Your task to perform on an android device: Open notification settings Image 0: 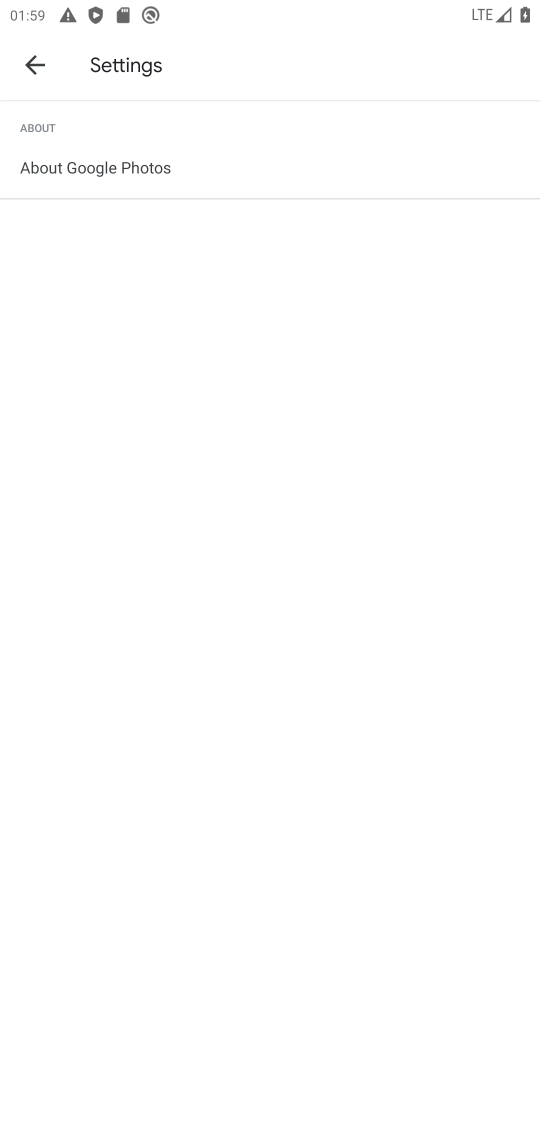
Step 0: press home button
Your task to perform on an android device: Open notification settings Image 1: 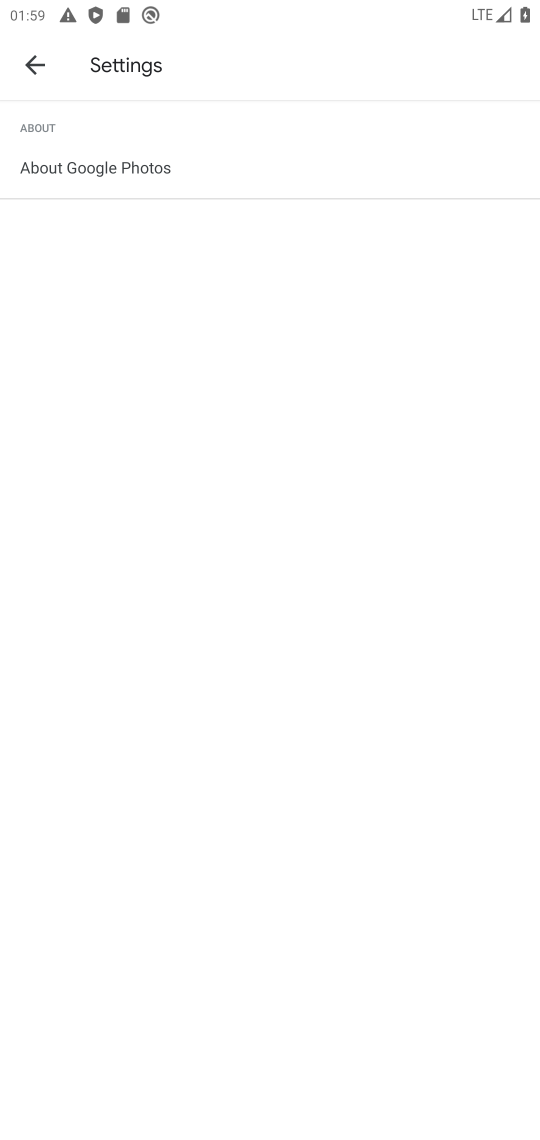
Step 1: press home button
Your task to perform on an android device: Open notification settings Image 2: 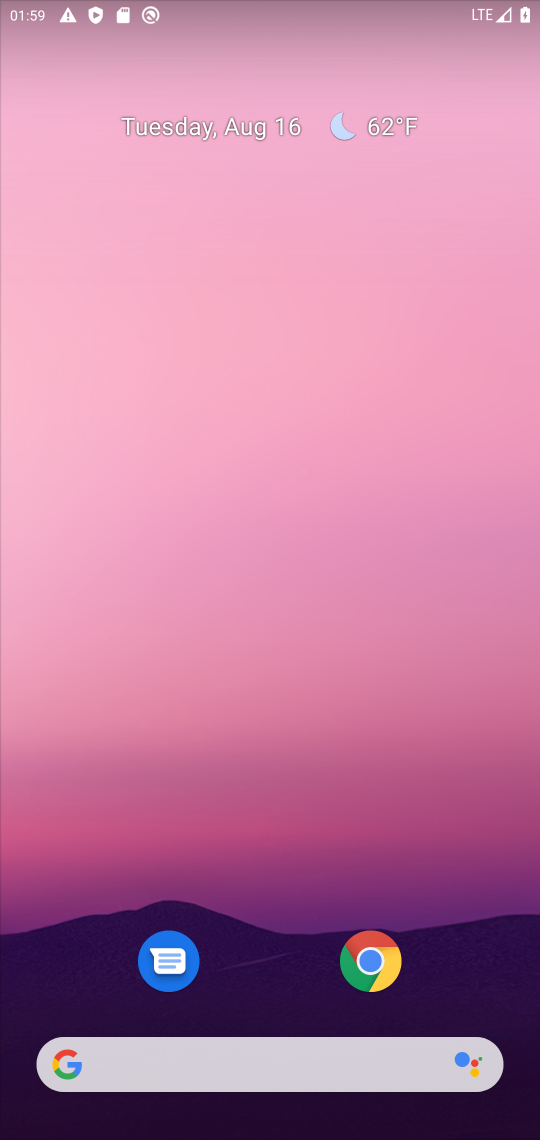
Step 2: drag from (272, 887) to (300, 4)
Your task to perform on an android device: Open notification settings Image 3: 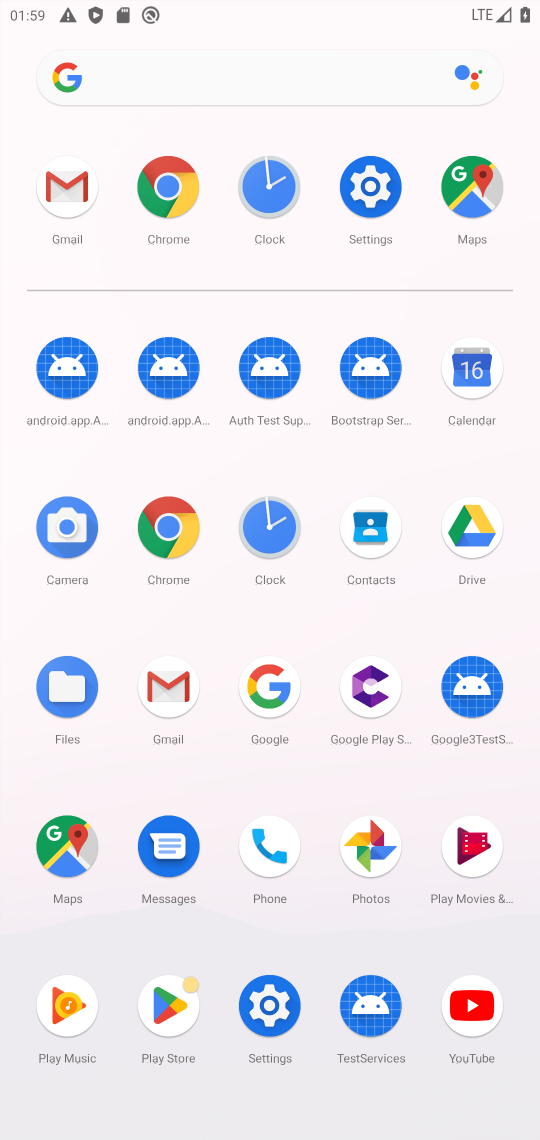
Step 3: click (377, 200)
Your task to perform on an android device: Open notification settings Image 4: 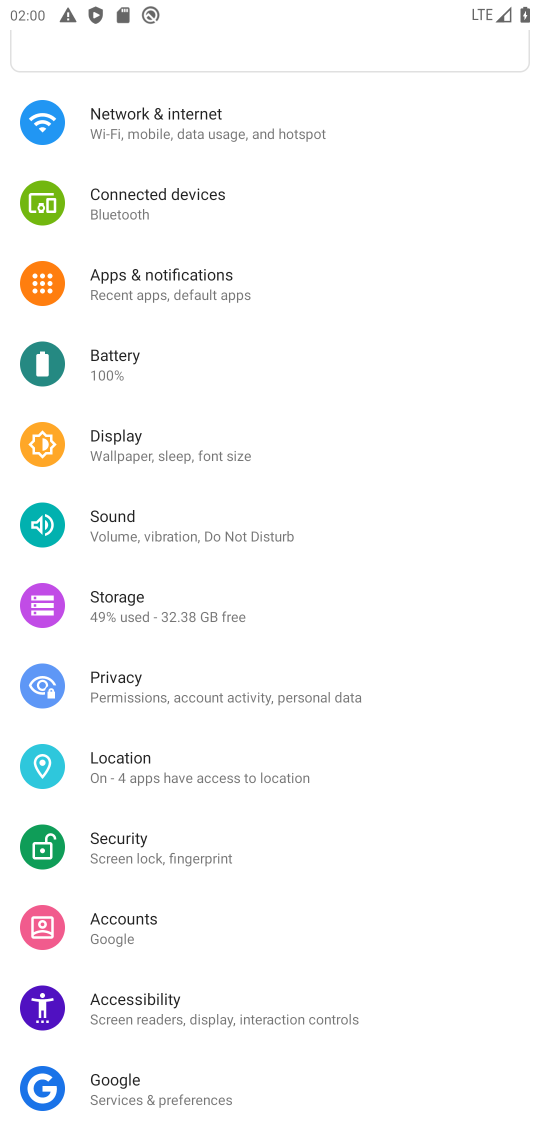
Step 4: click (224, 280)
Your task to perform on an android device: Open notification settings Image 5: 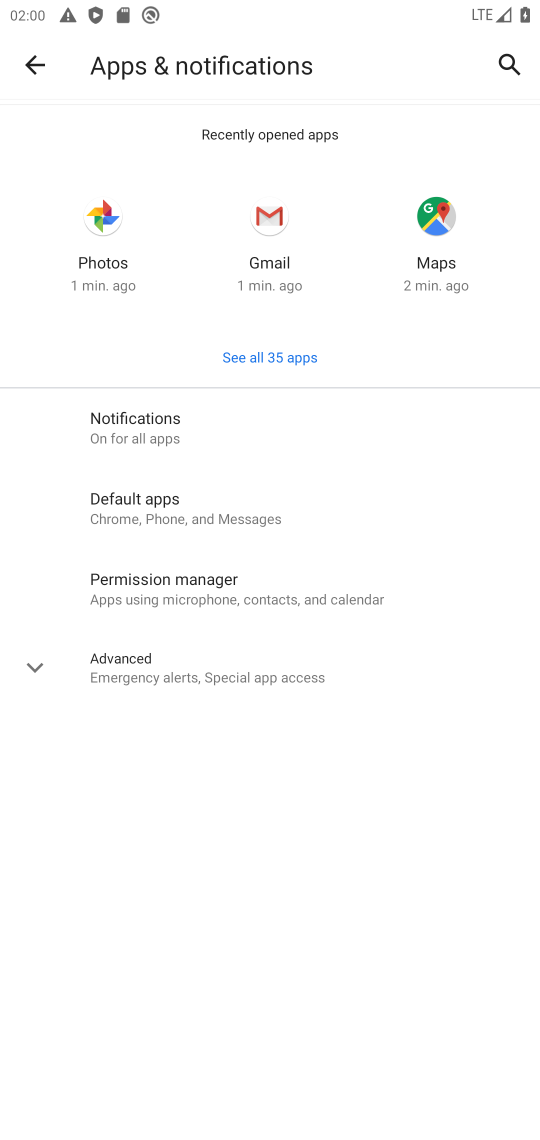
Step 5: click (172, 417)
Your task to perform on an android device: Open notification settings Image 6: 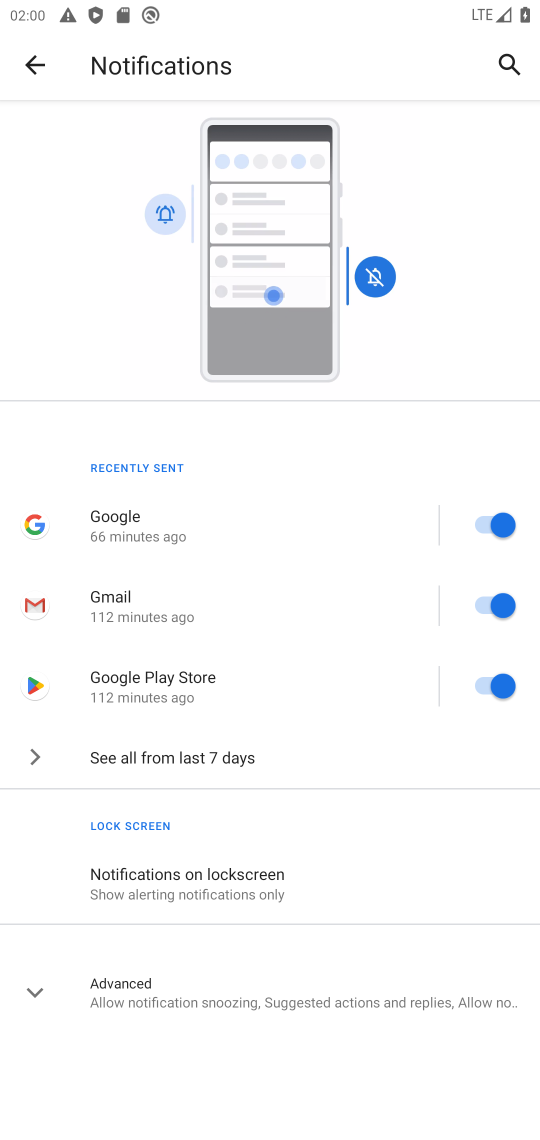
Step 6: task complete